Your task to perform on an android device: clear all cookies in the chrome app Image 0: 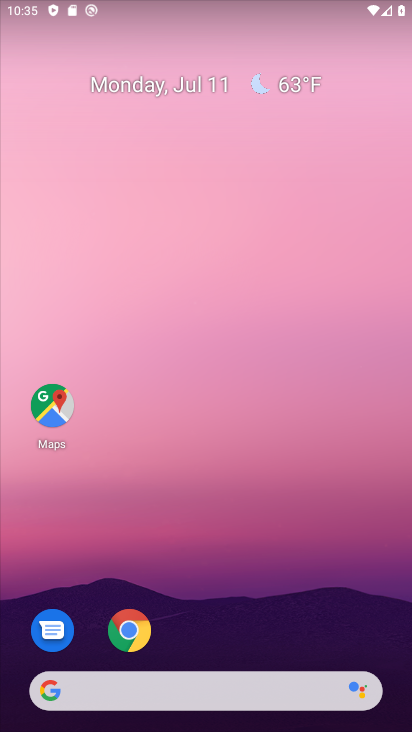
Step 0: click (126, 628)
Your task to perform on an android device: clear all cookies in the chrome app Image 1: 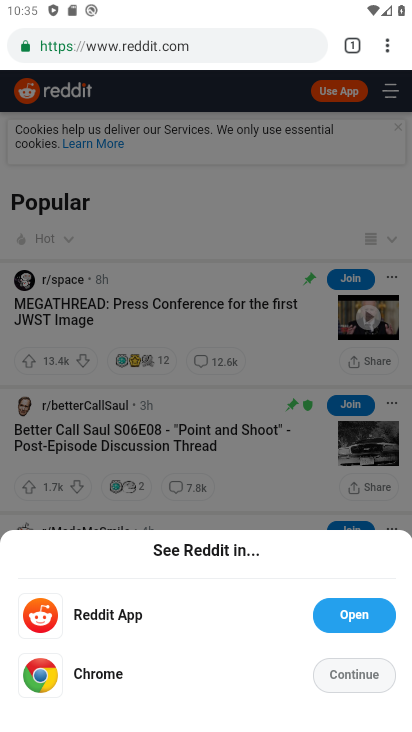
Step 1: click (387, 51)
Your task to perform on an android device: clear all cookies in the chrome app Image 2: 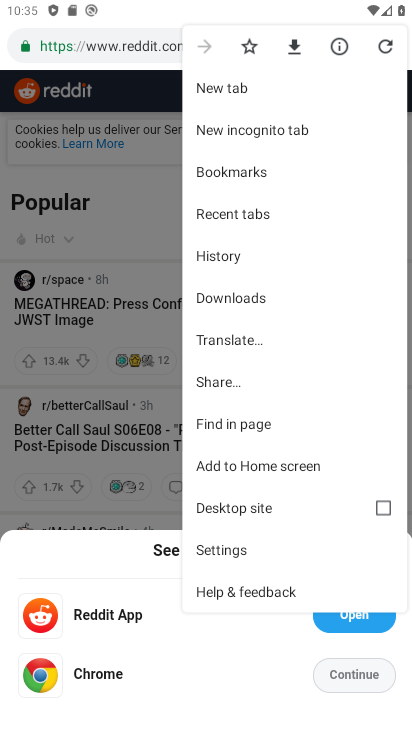
Step 2: click (221, 259)
Your task to perform on an android device: clear all cookies in the chrome app Image 3: 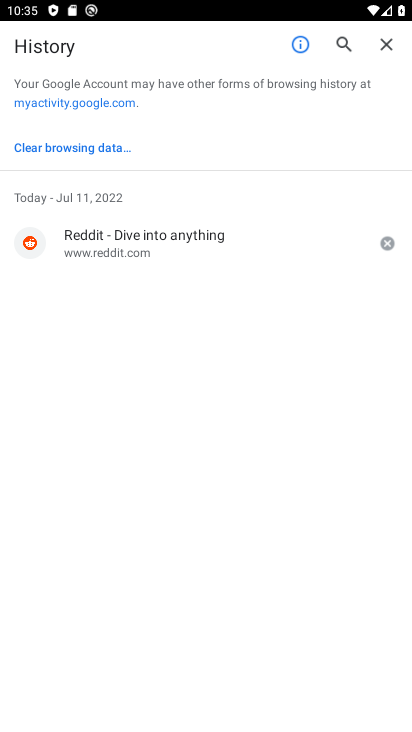
Step 3: click (73, 150)
Your task to perform on an android device: clear all cookies in the chrome app Image 4: 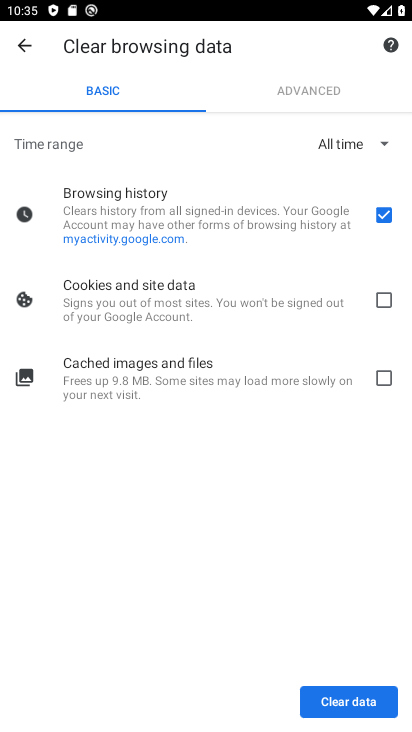
Step 4: click (382, 296)
Your task to perform on an android device: clear all cookies in the chrome app Image 5: 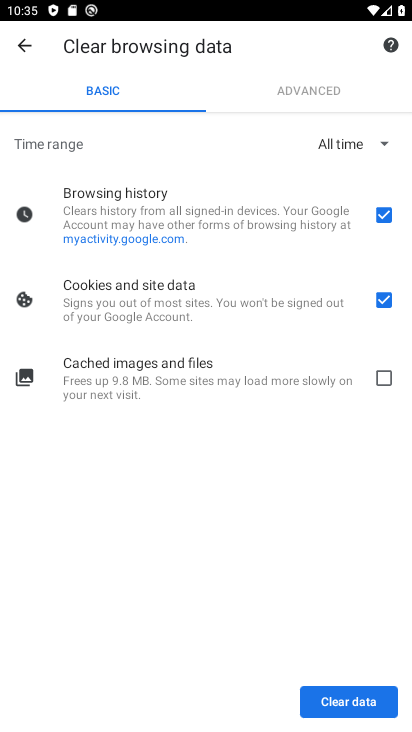
Step 5: click (378, 205)
Your task to perform on an android device: clear all cookies in the chrome app Image 6: 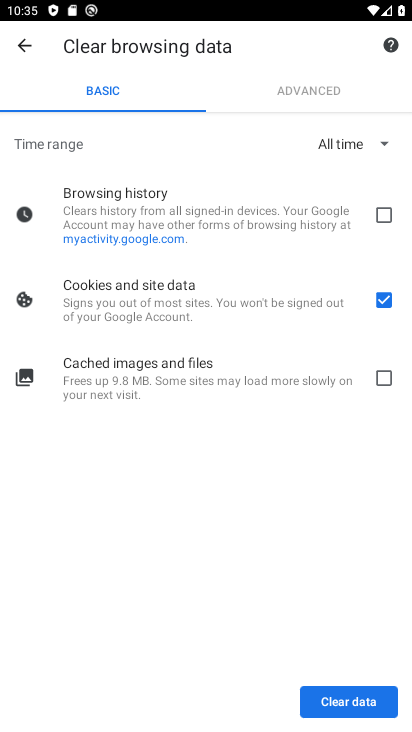
Step 6: click (342, 701)
Your task to perform on an android device: clear all cookies in the chrome app Image 7: 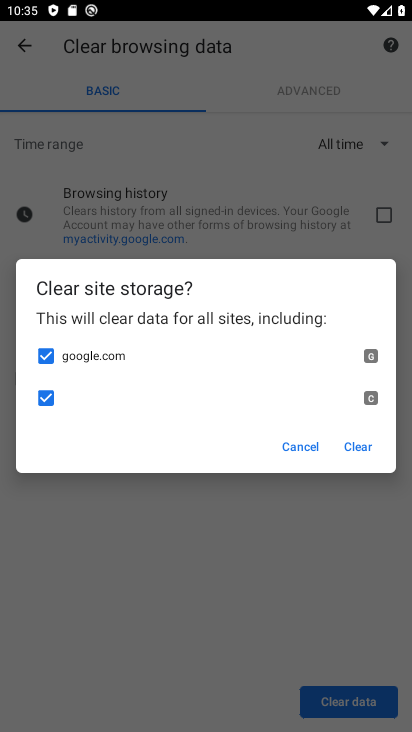
Step 7: click (359, 446)
Your task to perform on an android device: clear all cookies in the chrome app Image 8: 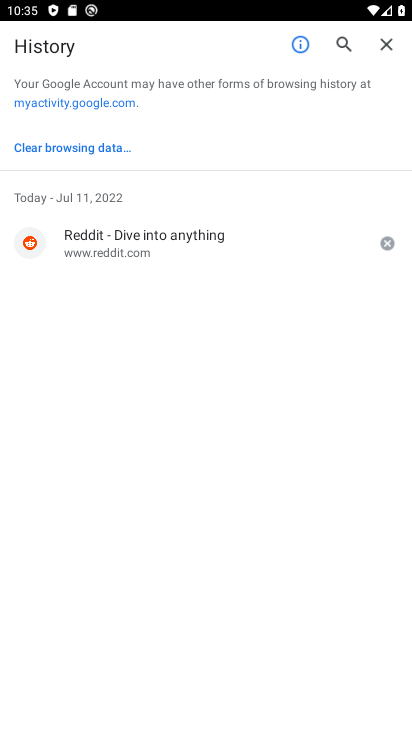
Step 8: task complete